Your task to perform on an android device: check data usage Image 0: 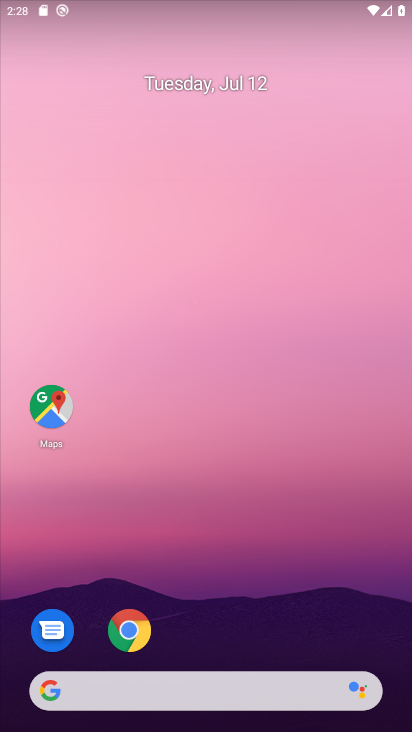
Step 0: click (255, 154)
Your task to perform on an android device: check data usage Image 1: 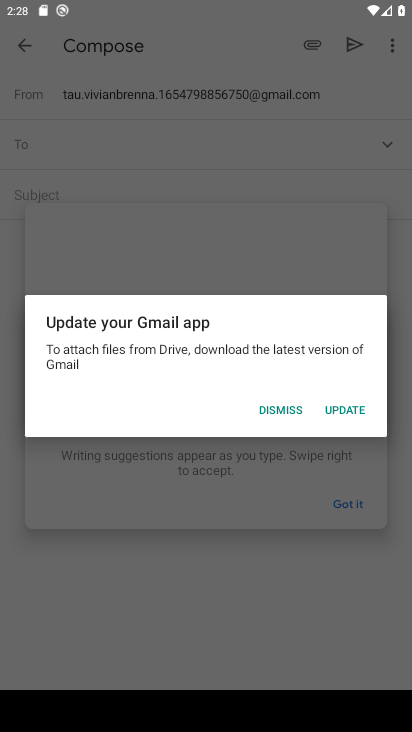
Step 1: press home button
Your task to perform on an android device: check data usage Image 2: 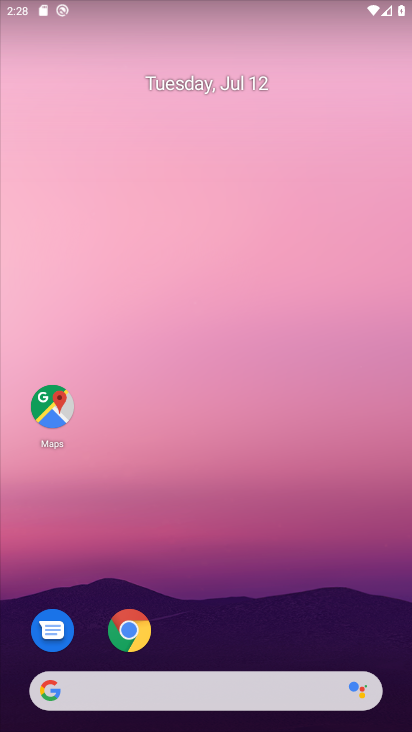
Step 2: drag from (219, 648) to (230, 5)
Your task to perform on an android device: check data usage Image 3: 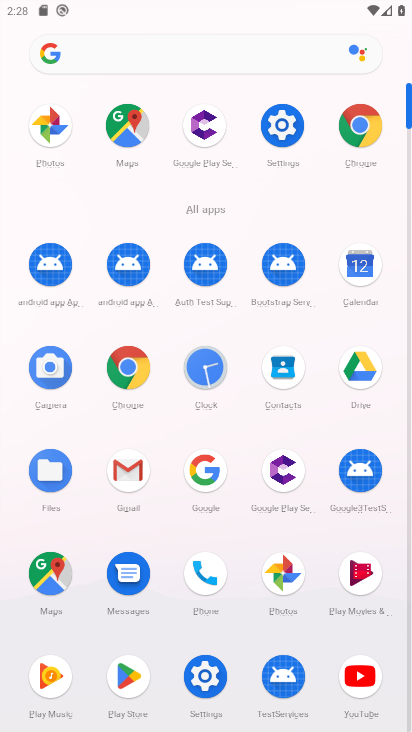
Step 3: click (285, 117)
Your task to perform on an android device: check data usage Image 4: 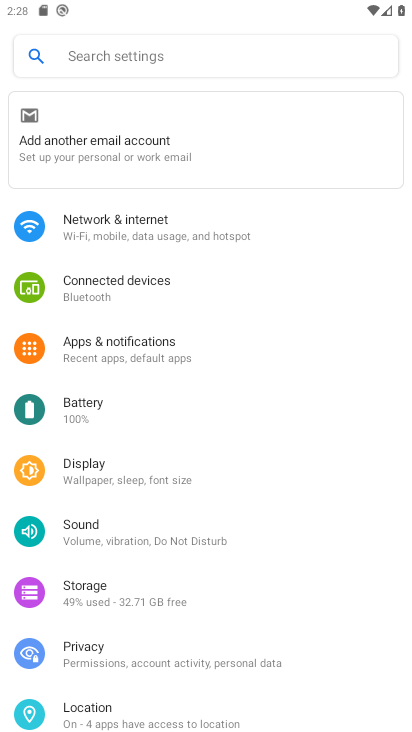
Step 4: click (153, 221)
Your task to perform on an android device: check data usage Image 5: 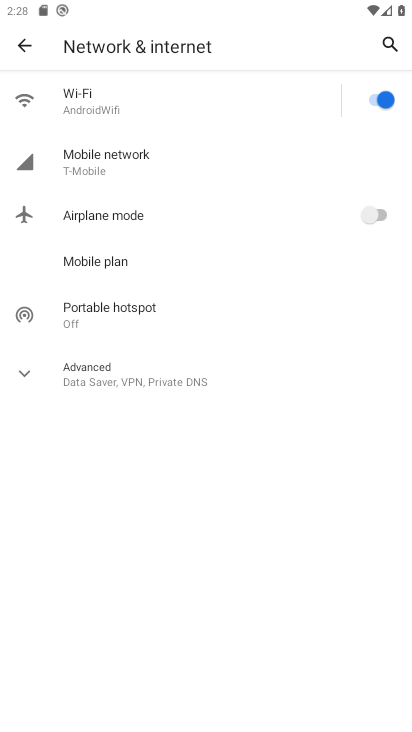
Step 5: click (125, 164)
Your task to perform on an android device: check data usage Image 6: 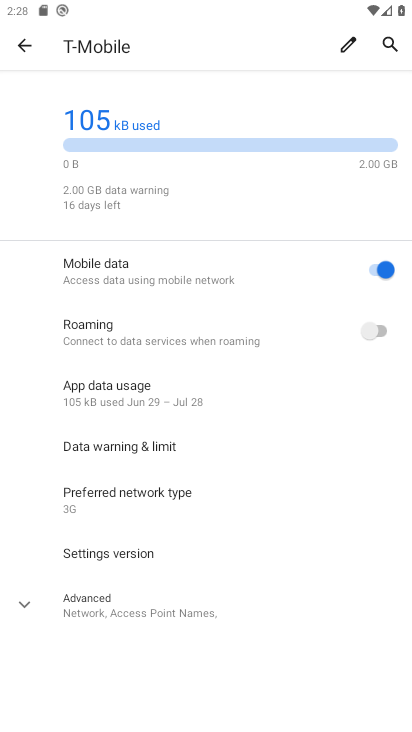
Step 6: click (146, 383)
Your task to perform on an android device: check data usage Image 7: 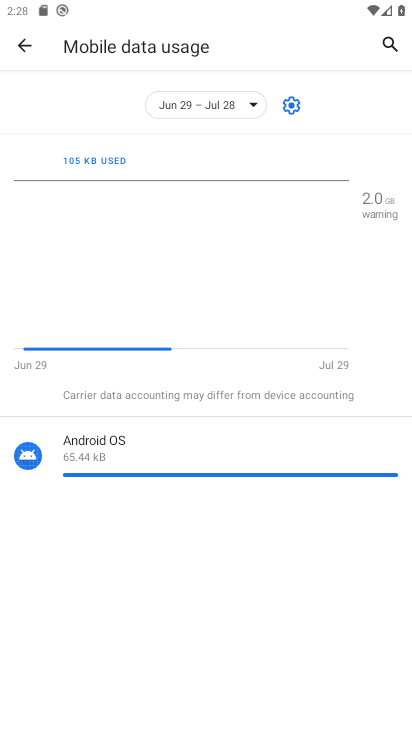
Step 7: task complete